Your task to perform on an android device: delete a single message in the gmail app Image 0: 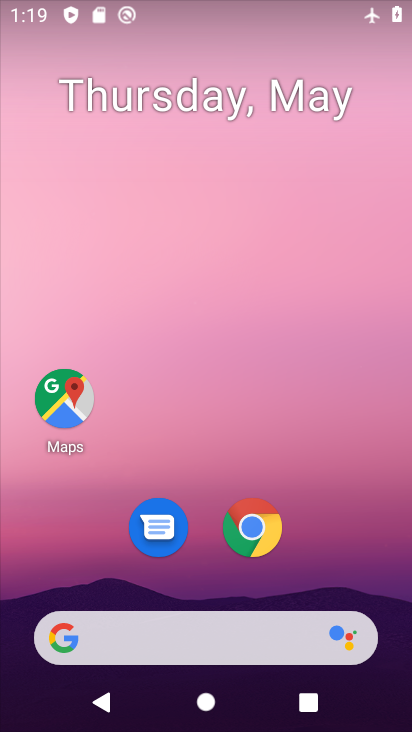
Step 0: drag from (207, 572) to (228, 57)
Your task to perform on an android device: delete a single message in the gmail app Image 1: 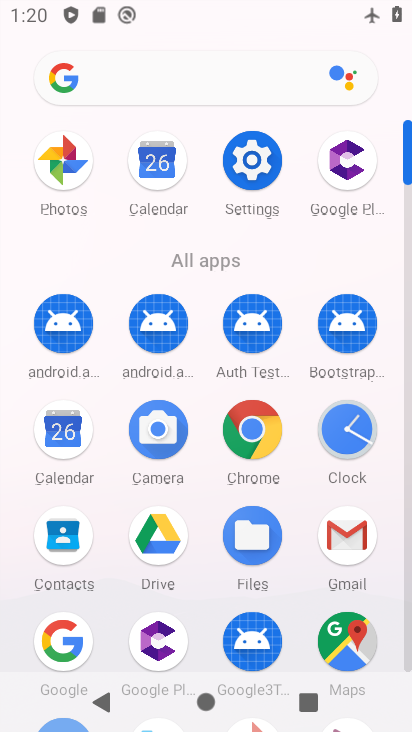
Step 1: click (359, 536)
Your task to perform on an android device: delete a single message in the gmail app Image 2: 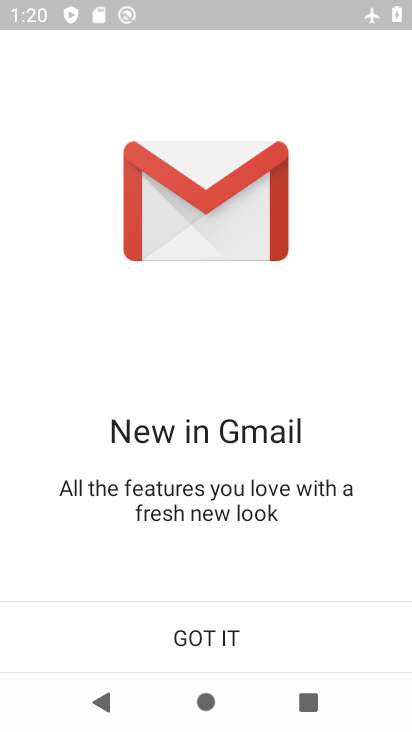
Step 2: click (177, 648)
Your task to perform on an android device: delete a single message in the gmail app Image 3: 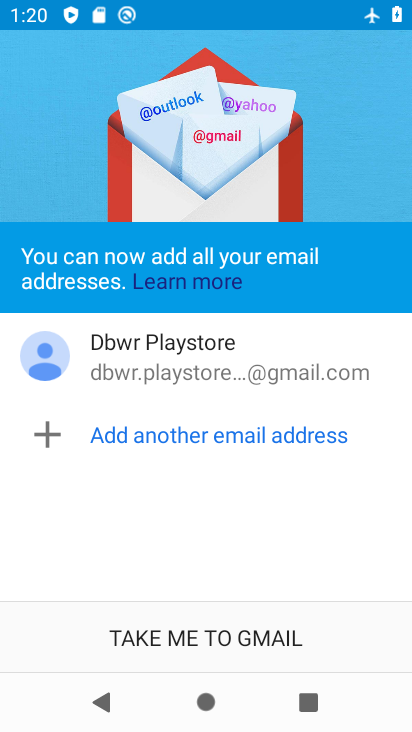
Step 3: click (195, 640)
Your task to perform on an android device: delete a single message in the gmail app Image 4: 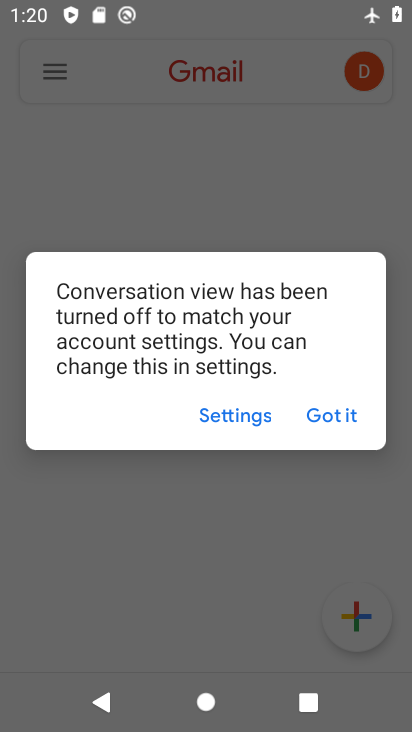
Step 4: click (325, 429)
Your task to perform on an android device: delete a single message in the gmail app Image 5: 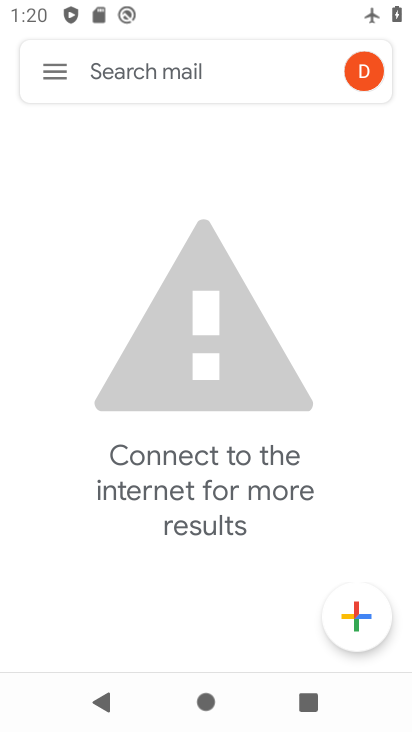
Step 5: click (57, 70)
Your task to perform on an android device: delete a single message in the gmail app Image 6: 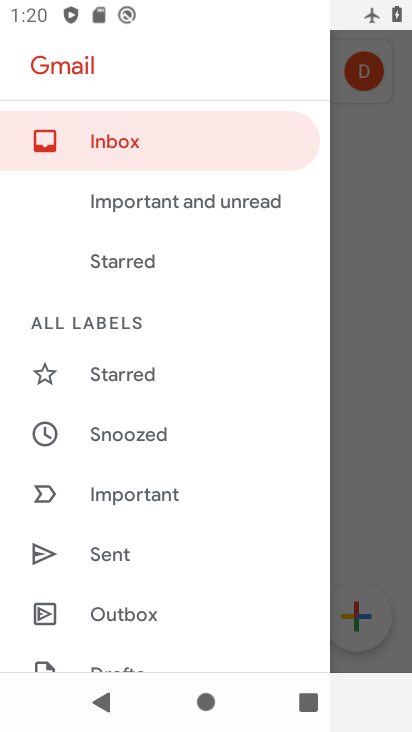
Step 6: drag from (119, 506) to (134, 67)
Your task to perform on an android device: delete a single message in the gmail app Image 7: 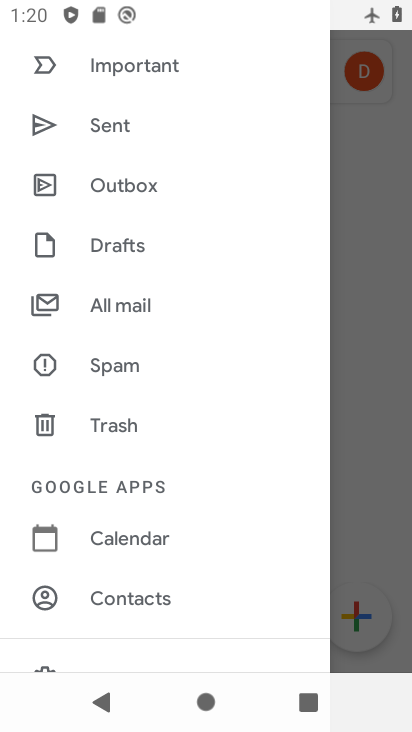
Step 7: drag from (123, 577) to (190, 188)
Your task to perform on an android device: delete a single message in the gmail app Image 8: 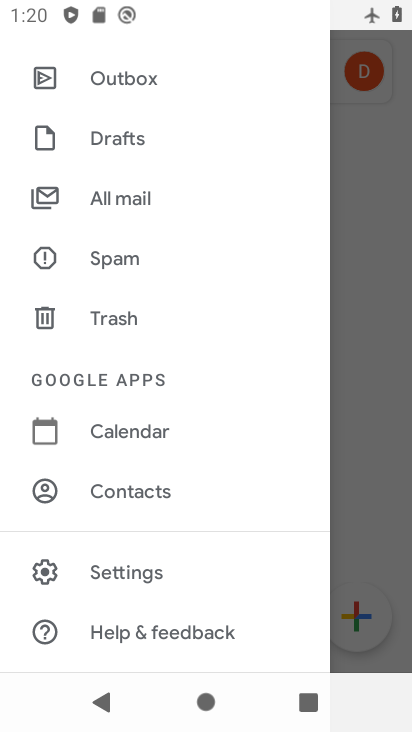
Step 8: click (152, 200)
Your task to perform on an android device: delete a single message in the gmail app Image 9: 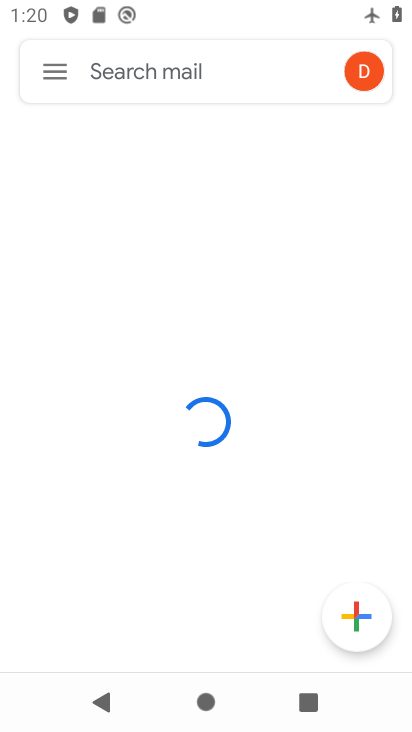
Step 9: task complete